Your task to perform on an android device: open a new tab in the chrome app Image 0: 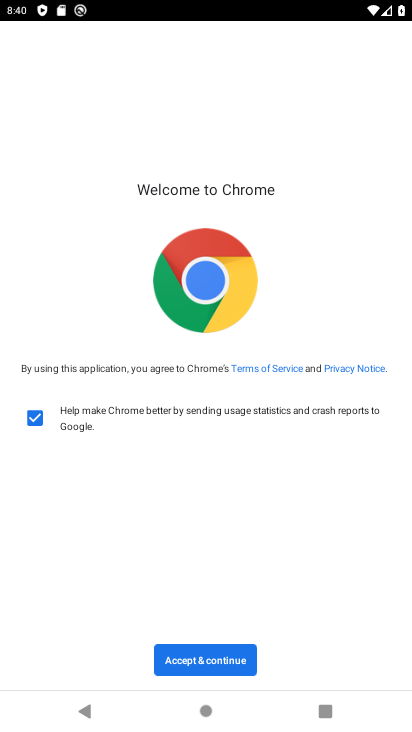
Step 0: press home button
Your task to perform on an android device: open a new tab in the chrome app Image 1: 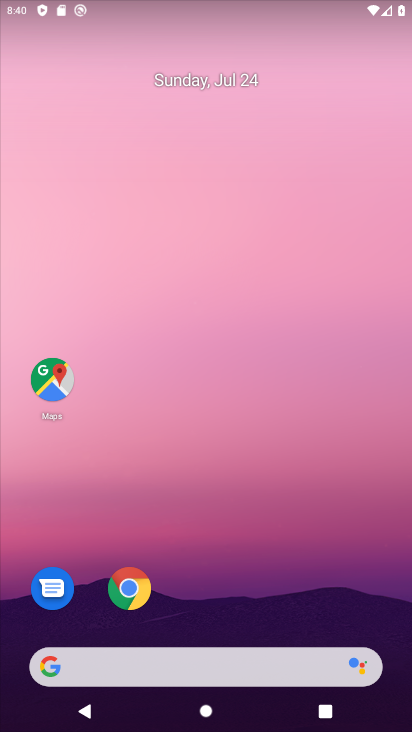
Step 1: click (139, 574)
Your task to perform on an android device: open a new tab in the chrome app Image 2: 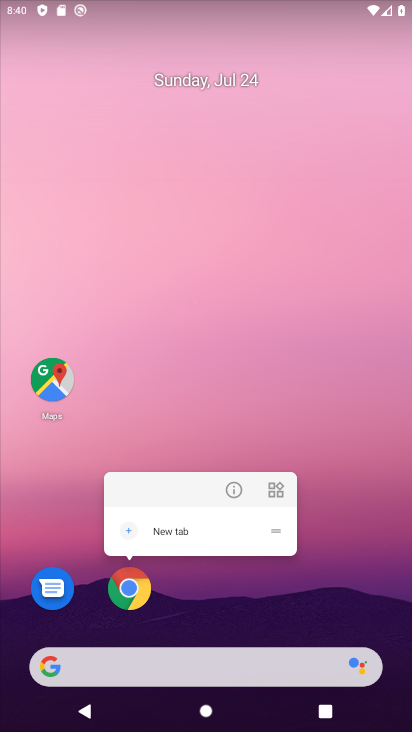
Step 2: click (122, 589)
Your task to perform on an android device: open a new tab in the chrome app Image 3: 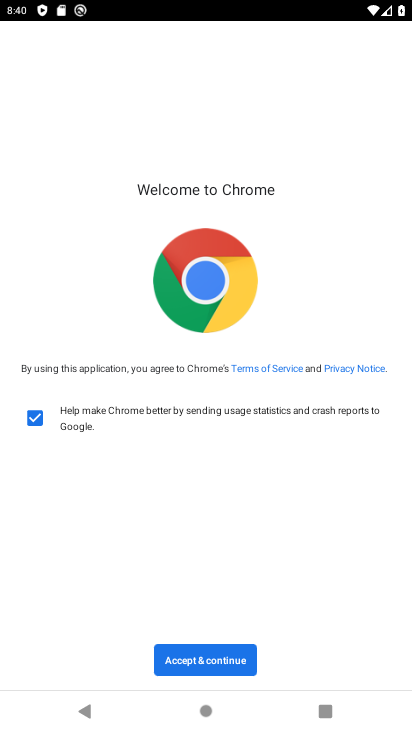
Step 3: click (187, 651)
Your task to perform on an android device: open a new tab in the chrome app Image 4: 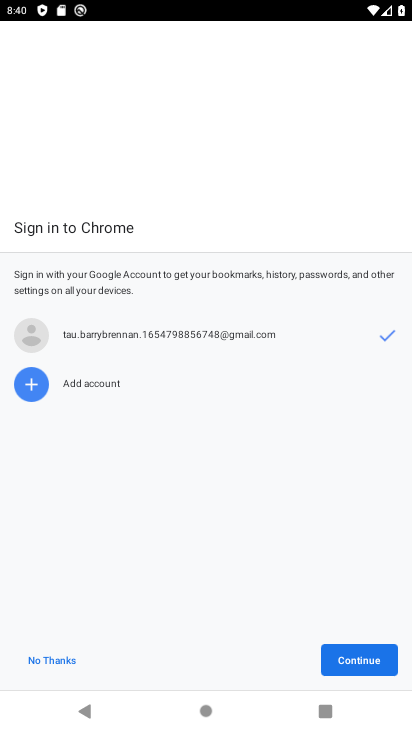
Step 4: click (367, 653)
Your task to perform on an android device: open a new tab in the chrome app Image 5: 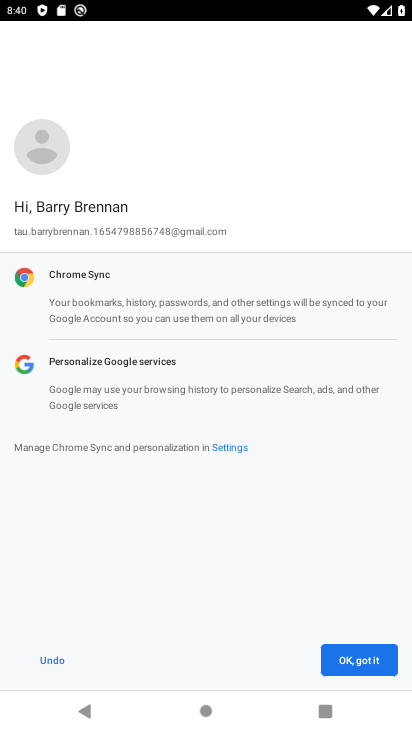
Step 5: click (367, 652)
Your task to perform on an android device: open a new tab in the chrome app Image 6: 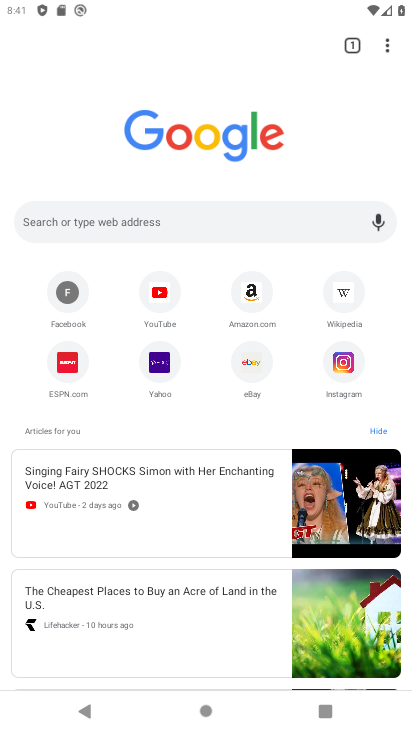
Step 6: click (385, 46)
Your task to perform on an android device: open a new tab in the chrome app Image 7: 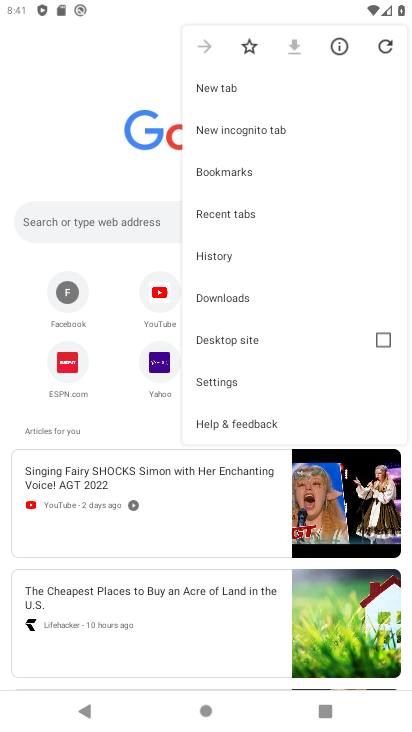
Step 7: click (225, 85)
Your task to perform on an android device: open a new tab in the chrome app Image 8: 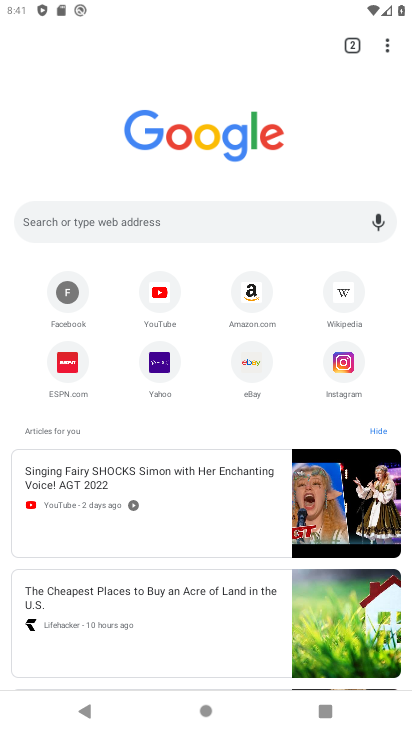
Step 8: task complete